Your task to perform on an android device: Open the phone app and click the voicemail tab. Image 0: 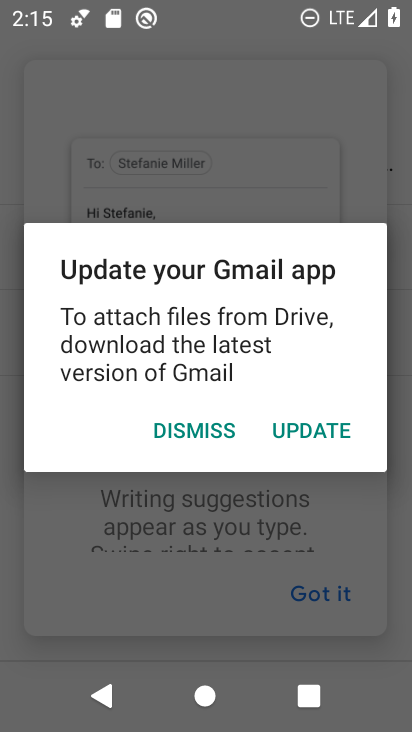
Step 0: press home button
Your task to perform on an android device: Open the phone app and click the voicemail tab. Image 1: 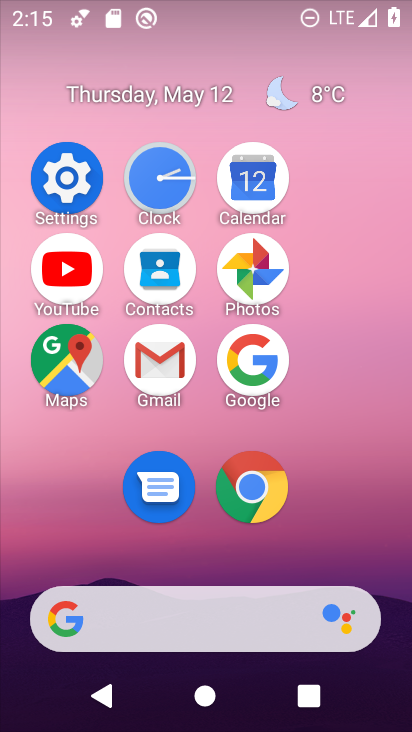
Step 1: drag from (225, 552) to (282, 115)
Your task to perform on an android device: Open the phone app and click the voicemail tab. Image 2: 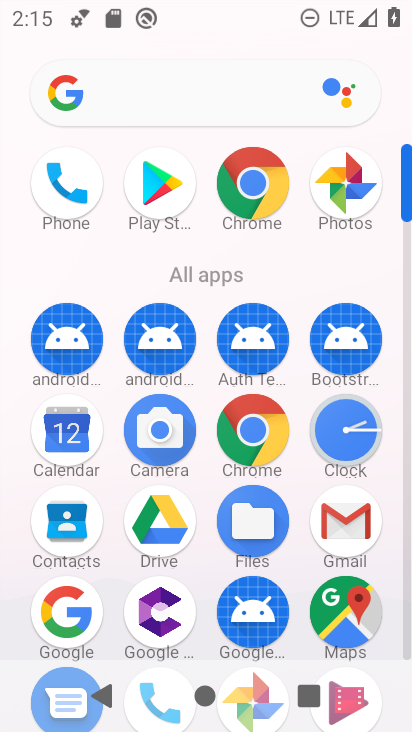
Step 2: drag from (151, 616) to (236, 219)
Your task to perform on an android device: Open the phone app and click the voicemail tab. Image 3: 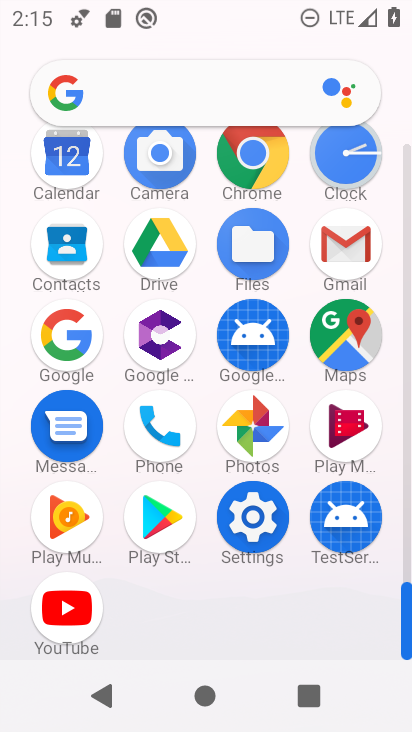
Step 3: click (170, 448)
Your task to perform on an android device: Open the phone app and click the voicemail tab. Image 4: 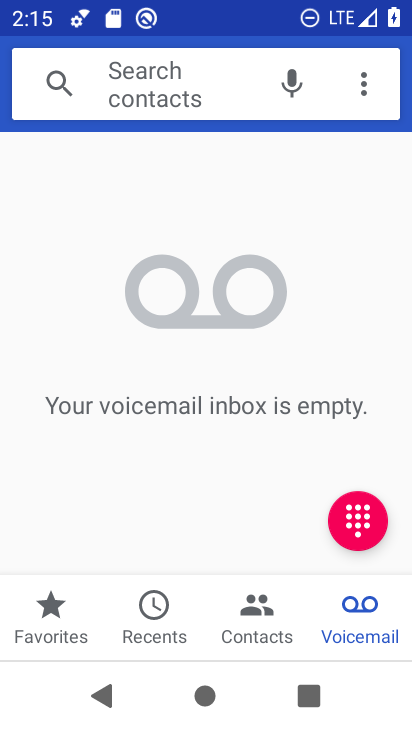
Step 4: click (351, 623)
Your task to perform on an android device: Open the phone app and click the voicemail tab. Image 5: 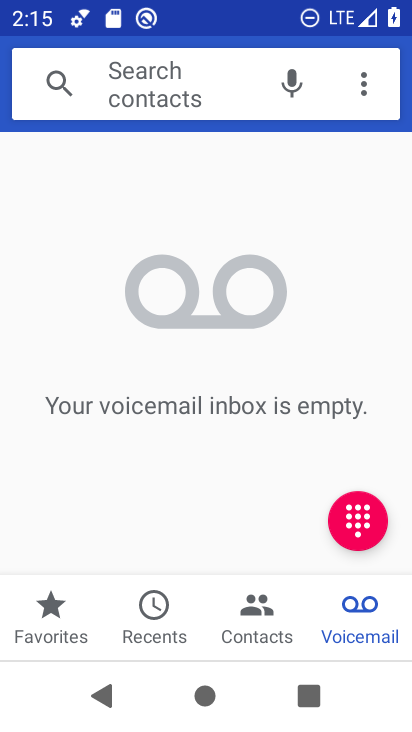
Step 5: task complete